Your task to perform on an android device: Go to Android settings Image 0: 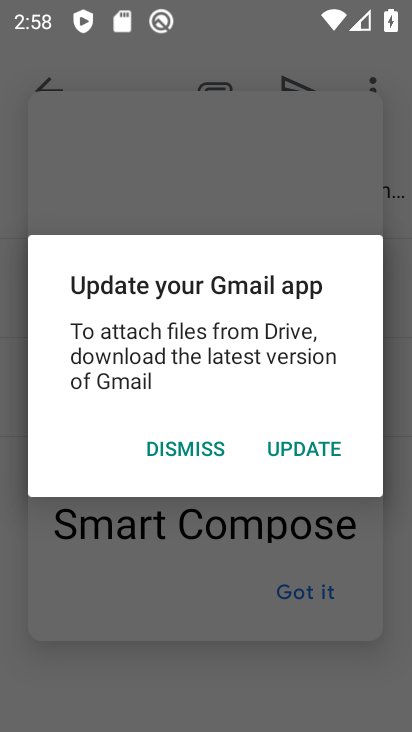
Step 0: press home button
Your task to perform on an android device: Go to Android settings Image 1: 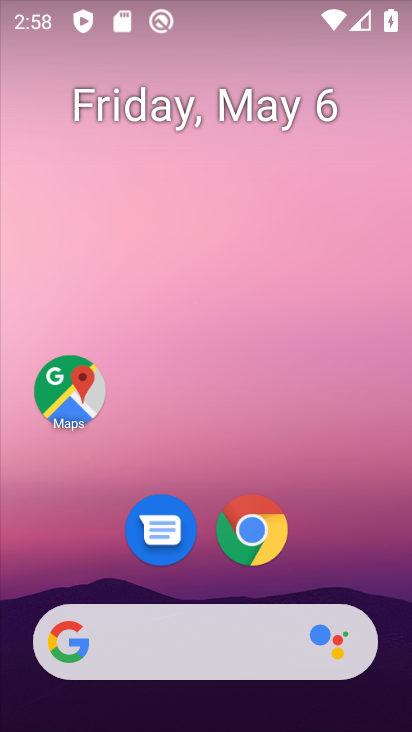
Step 1: drag from (178, 684) to (246, 157)
Your task to perform on an android device: Go to Android settings Image 2: 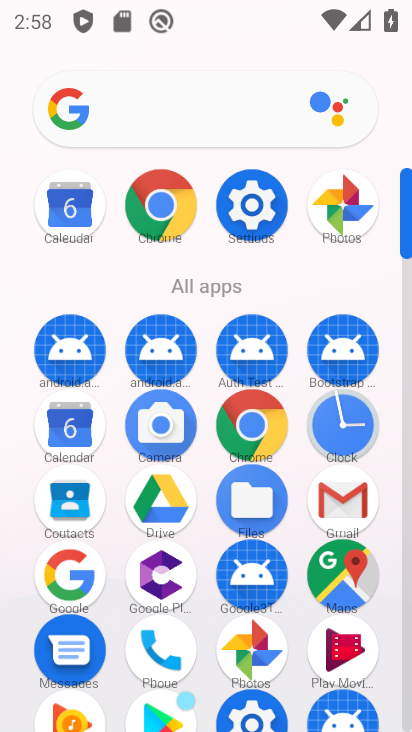
Step 2: click (253, 223)
Your task to perform on an android device: Go to Android settings Image 3: 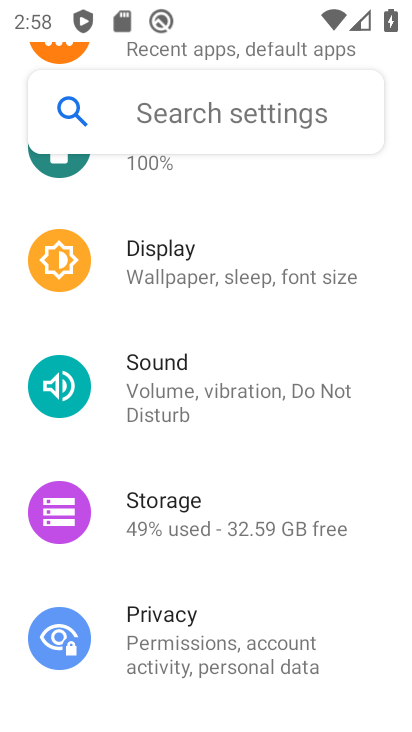
Step 3: drag from (221, 561) to (221, 142)
Your task to perform on an android device: Go to Android settings Image 4: 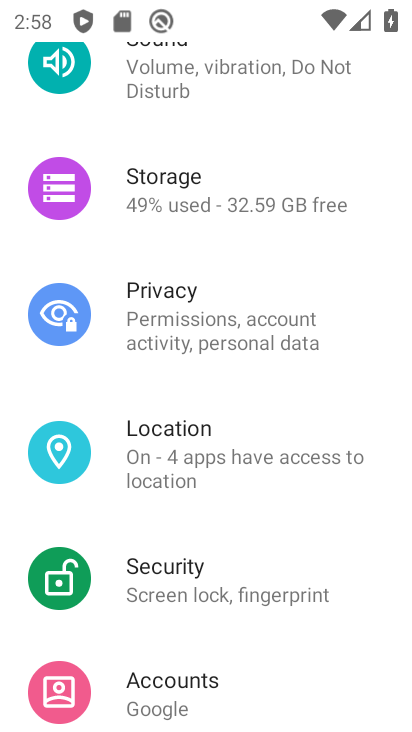
Step 4: drag from (164, 552) to (207, 170)
Your task to perform on an android device: Go to Android settings Image 5: 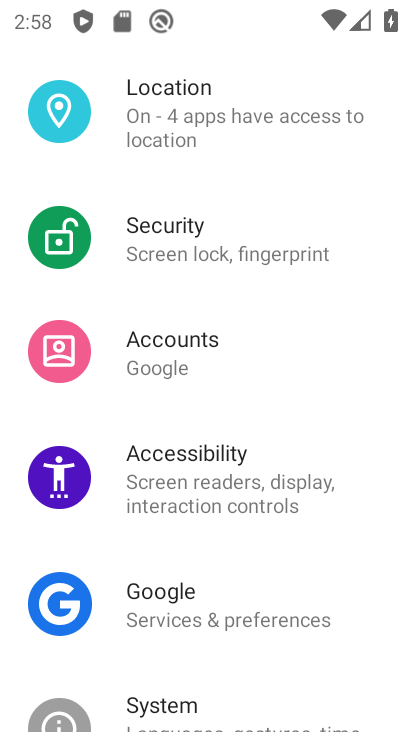
Step 5: drag from (218, 575) to (250, 189)
Your task to perform on an android device: Go to Android settings Image 6: 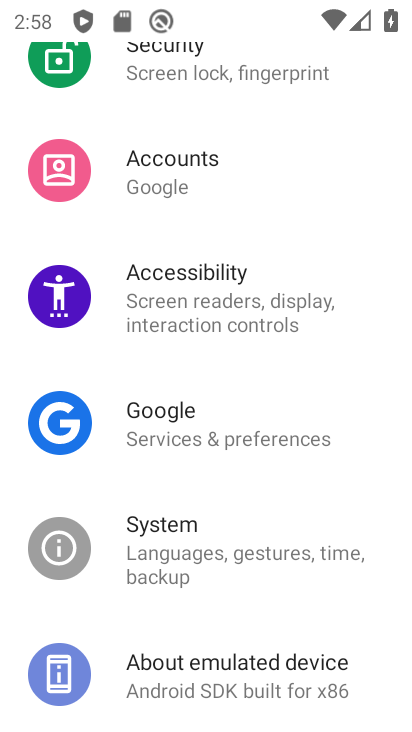
Step 6: drag from (207, 673) to (259, 296)
Your task to perform on an android device: Go to Android settings Image 7: 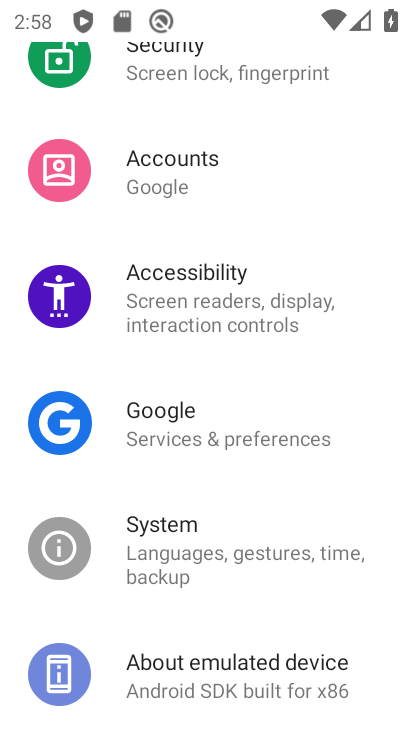
Step 7: click (214, 691)
Your task to perform on an android device: Go to Android settings Image 8: 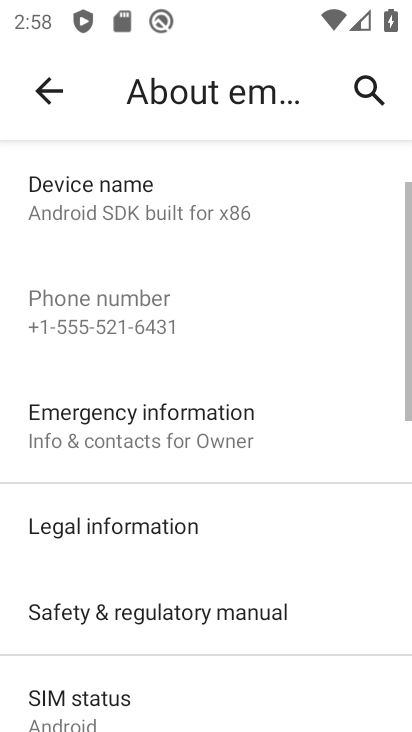
Step 8: task complete